Your task to perform on an android device: change timer sound Image 0: 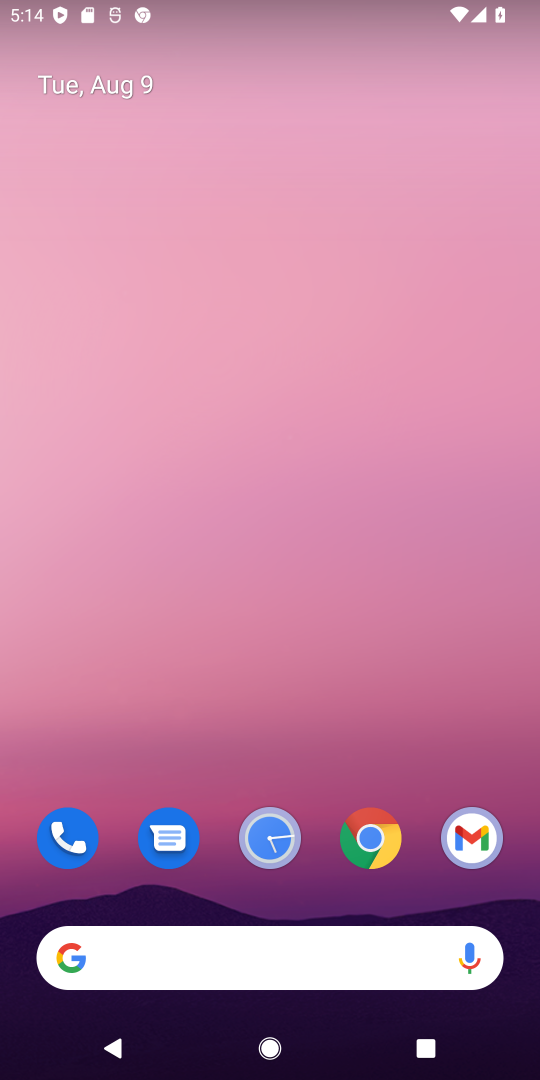
Step 0: click (293, 835)
Your task to perform on an android device: change timer sound Image 1: 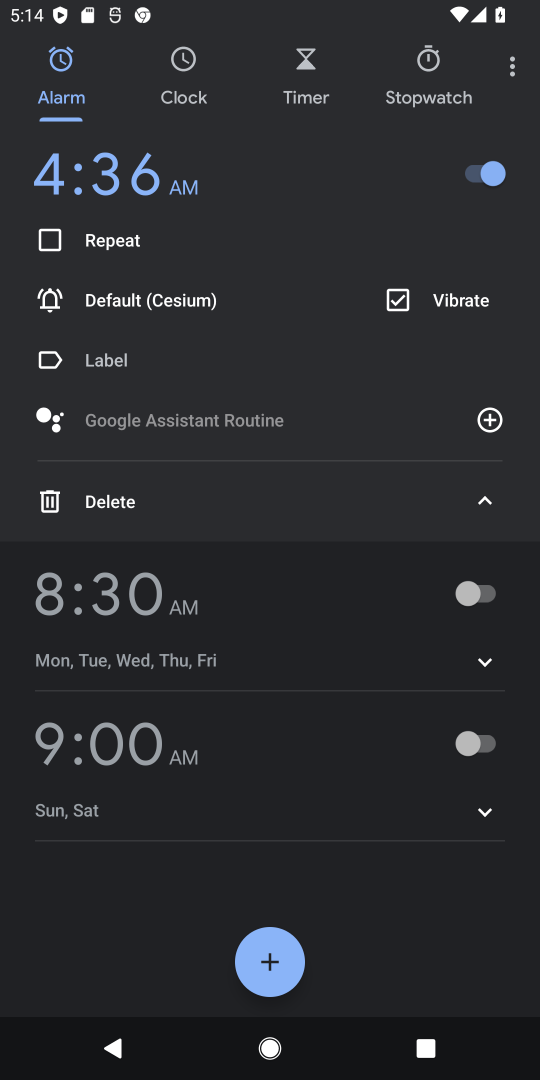
Step 1: click (515, 65)
Your task to perform on an android device: change timer sound Image 2: 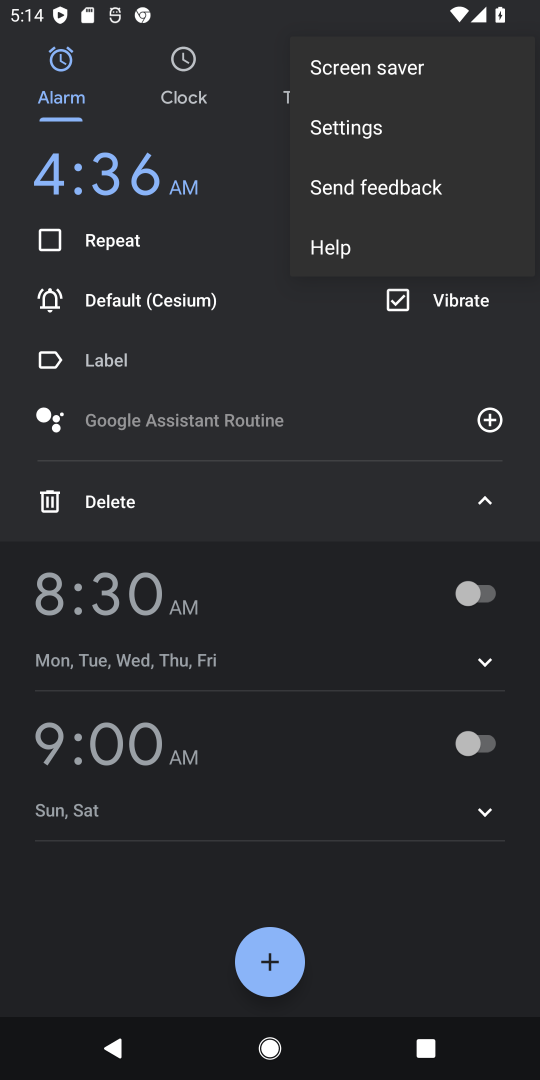
Step 2: click (438, 124)
Your task to perform on an android device: change timer sound Image 3: 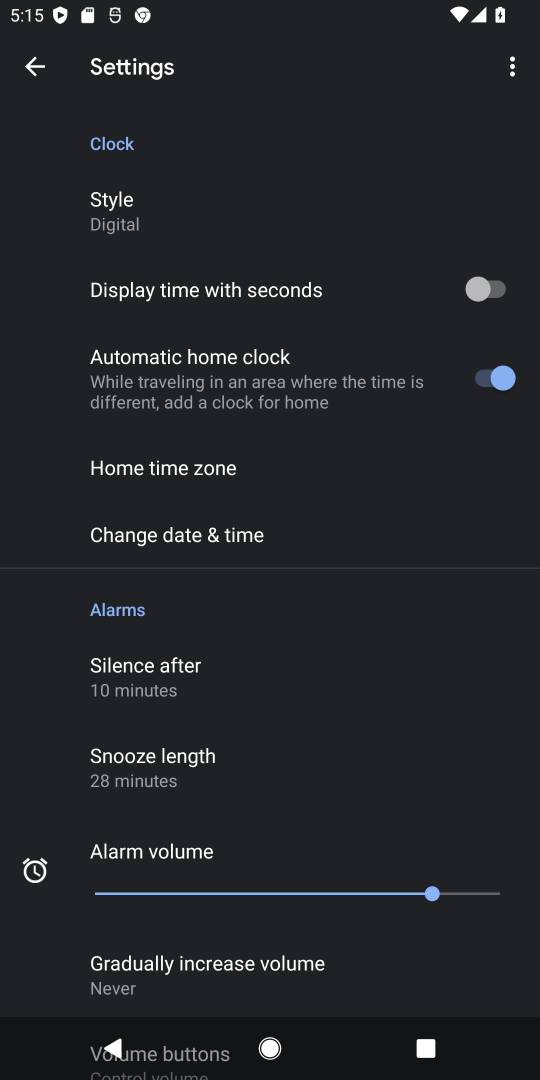
Step 3: drag from (318, 949) to (275, 256)
Your task to perform on an android device: change timer sound Image 4: 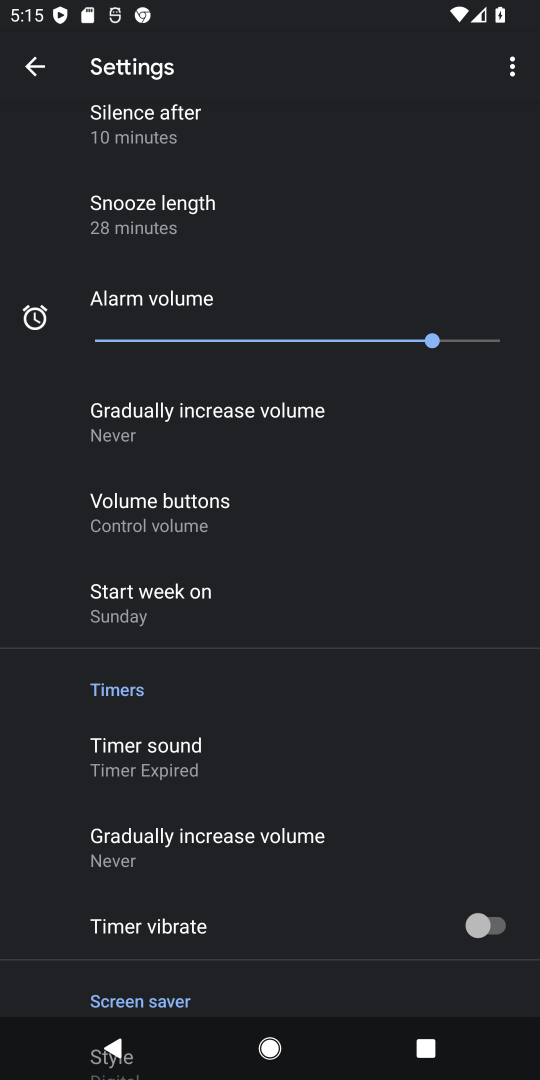
Step 4: click (238, 772)
Your task to perform on an android device: change timer sound Image 5: 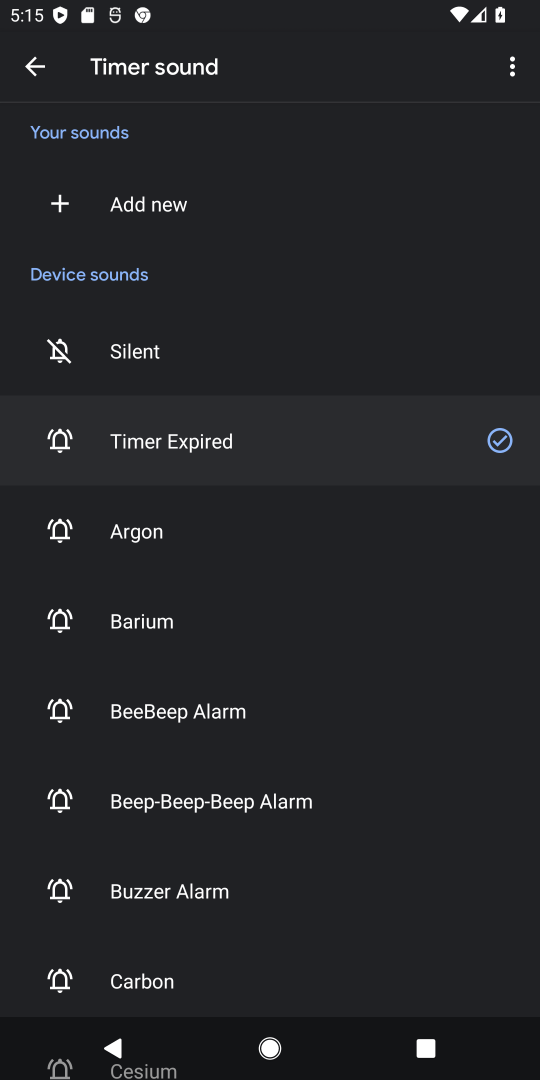
Step 5: click (265, 647)
Your task to perform on an android device: change timer sound Image 6: 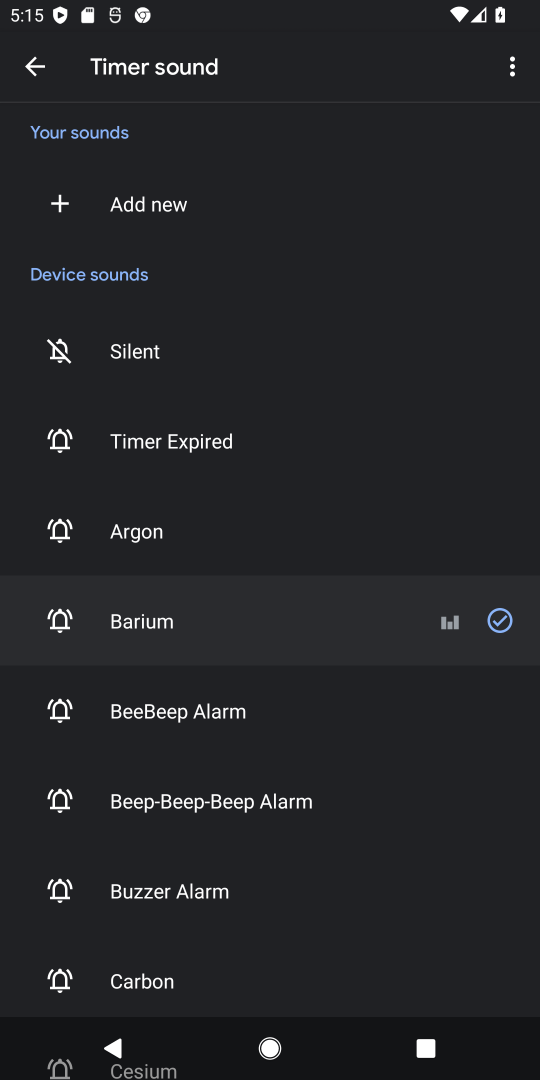
Step 6: task complete